Your task to perform on an android device: Search for dell alienware on target.com, select the first entry, and add it to the cart. Image 0: 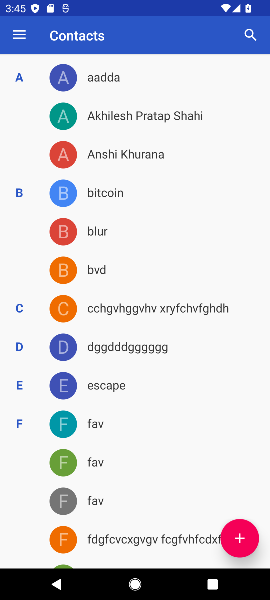
Step 0: press home button
Your task to perform on an android device: Search for dell alienware on target.com, select the first entry, and add it to the cart. Image 1: 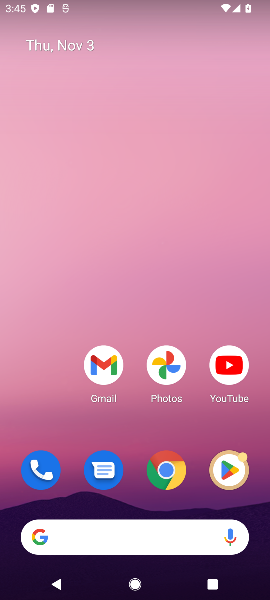
Step 1: click (163, 471)
Your task to perform on an android device: Search for dell alienware on target.com, select the first entry, and add it to the cart. Image 2: 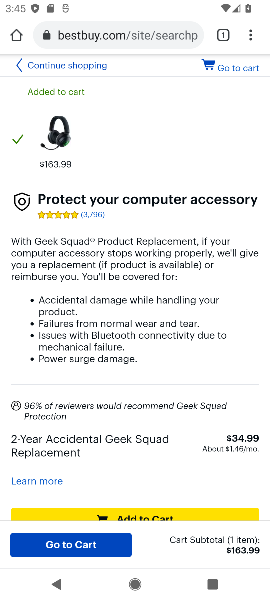
Step 2: click (223, 34)
Your task to perform on an android device: Search for dell alienware on target.com, select the first entry, and add it to the cart. Image 3: 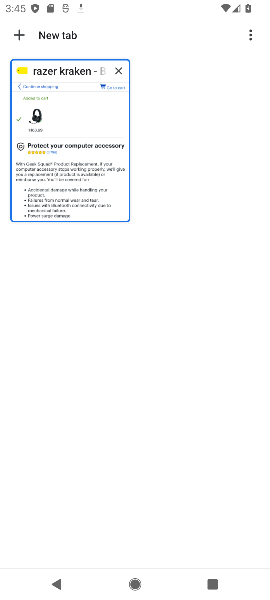
Step 3: click (18, 34)
Your task to perform on an android device: Search for dell alienware on target.com, select the first entry, and add it to the cart. Image 4: 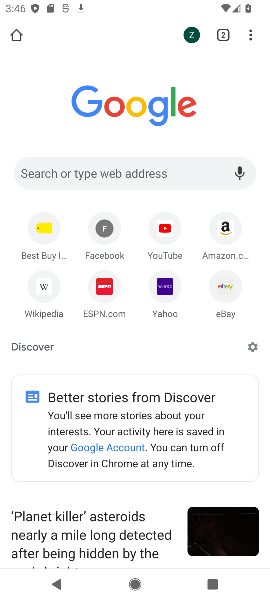
Step 4: click (117, 176)
Your task to perform on an android device: Search for dell alienware on target.com, select the first entry, and add it to the cart. Image 5: 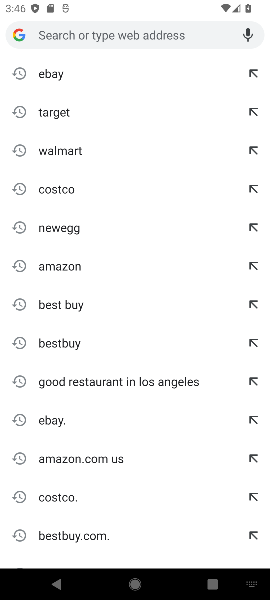
Step 5: type "target"
Your task to perform on an android device: Search for dell alienware on target.com, select the first entry, and add it to the cart. Image 6: 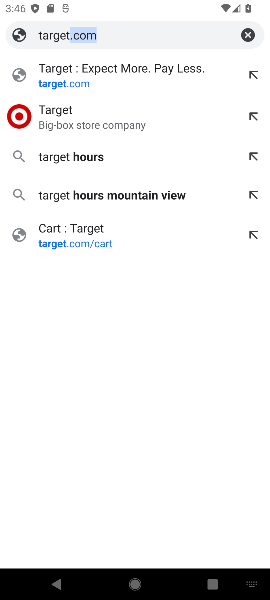
Step 6: click (72, 83)
Your task to perform on an android device: Search for dell alienware on target.com, select the first entry, and add it to the cart. Image 7: 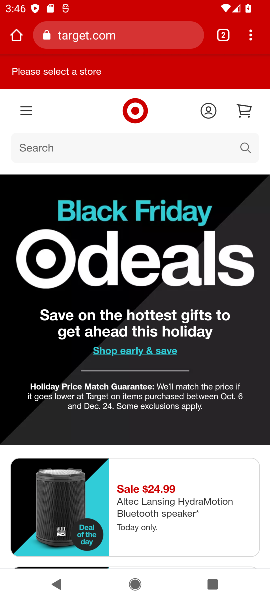
Step 7: click (194, 141)
Your task to perform on an android device: Search for dell alienware on target.com, select the first entry, and add it to the cart. Image 8: 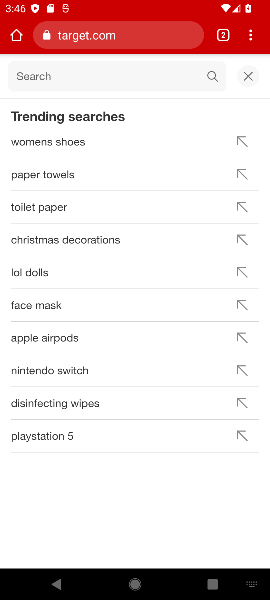
Step 8: type "dell alienware "
Your task to perform on an android device: Search for dell alienware on target.com, select the first entry, and add it to the cart. Image 9: 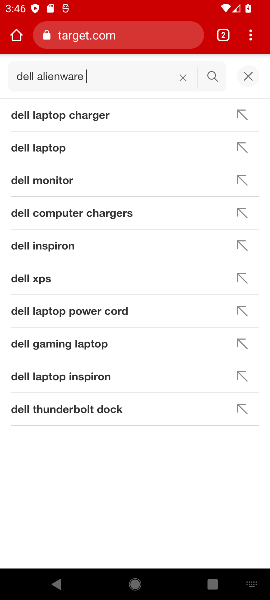
Step 9: click (211, 76)
Your task to perform on an android device: Search for dell alienware on target.com, select the first entry, and add it to the cart. Image 10: 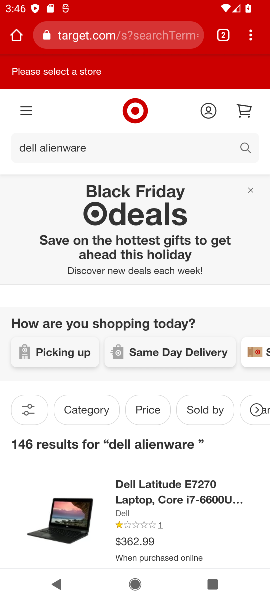
Step 10: drag from (186, 471) to (172, 119)
Your task to perform on an android device: Search for dell alienware on target.com, select the first entry, and add it to the cart. Image 11: 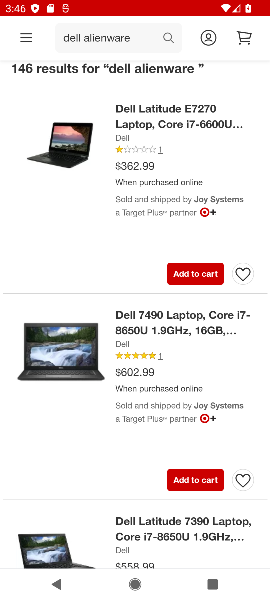
Step 11: click (200, 276)
Your task to perform on an android device: Search for dell alienware on target.com, select the first entry, and add it to the cart. Image 12: 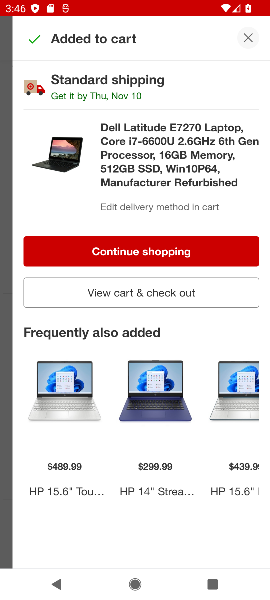
Step 12: task complete